Your task to perform on an android device: turn on wifi Image 0: 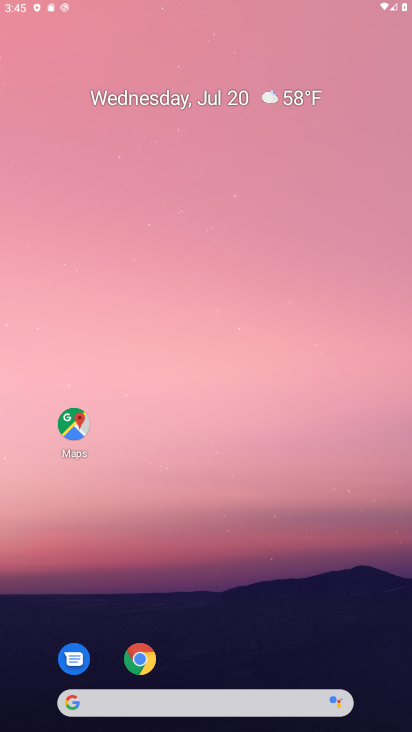
Step 0: drag from (266, 14) to (199, 1)
Your task to perform on an android device: turn on wifi Image 1: 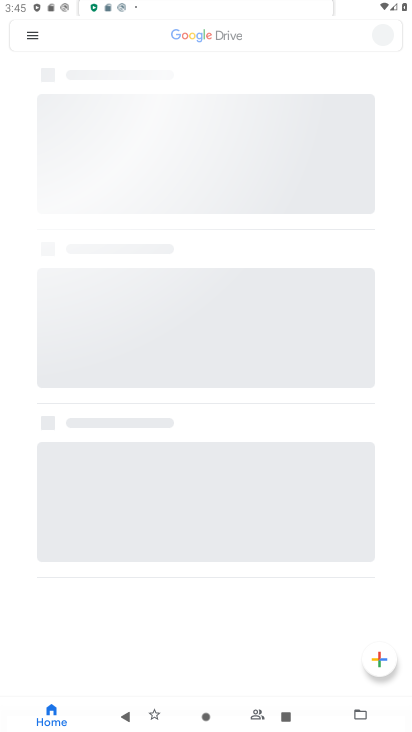
Step 1: drag from (249, 503) to (217, 14)
Your task to perform on an android device: turn on wifi Image 2: 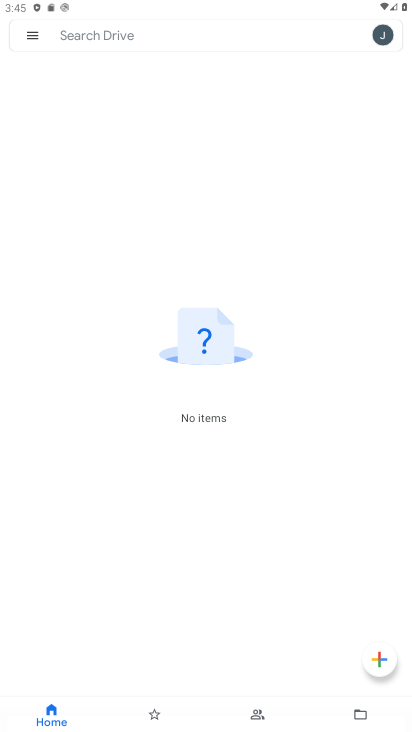
Step 2: press back button
Your task to perform on an android device: turn on wifi Image 3: 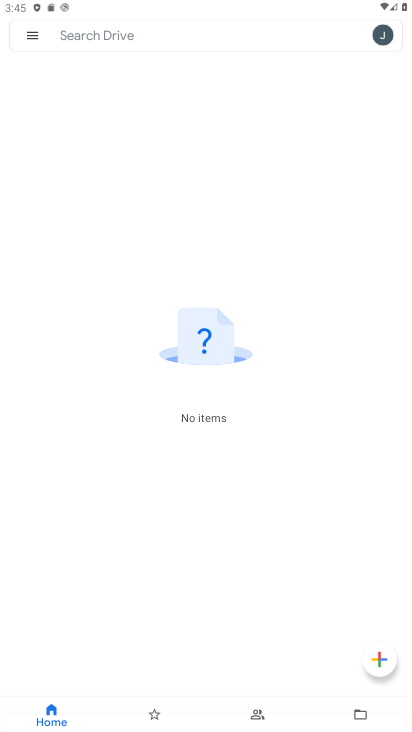
Step 3: press back button
Your task to perform on an android device: turn on wifi Image 4: 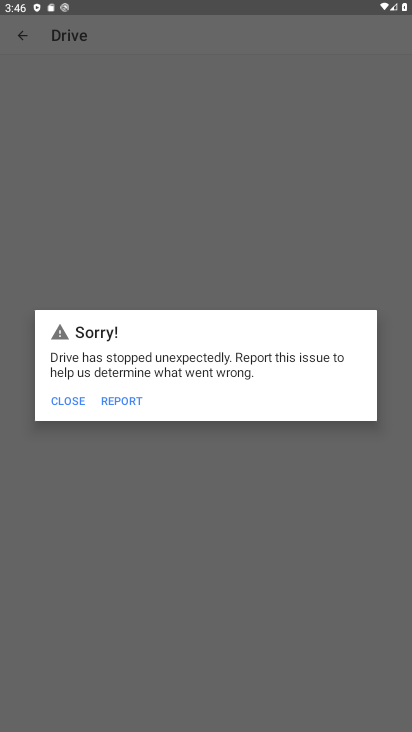
Step 4: click (79, 395)
Your task to perform on an android device: turn on wifi Image 5: 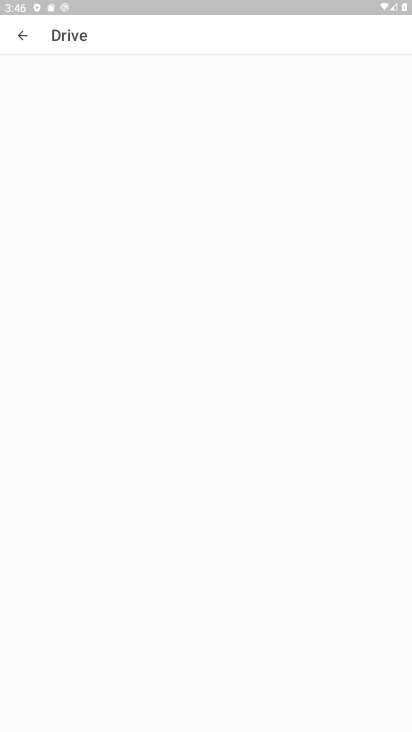
Step 5: click (92, 406)
Your task to perform on an android device: turn on wifi Image 6: 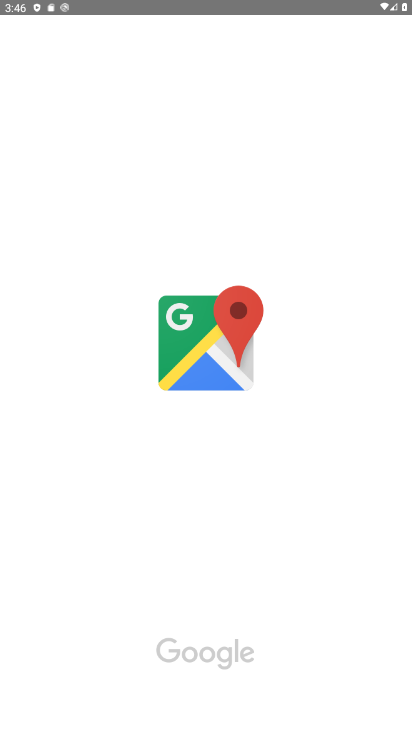
Step 6: drag from (302, 605) to (221, 26)
Your task to perform on an android device: turn on wifi Image 7: 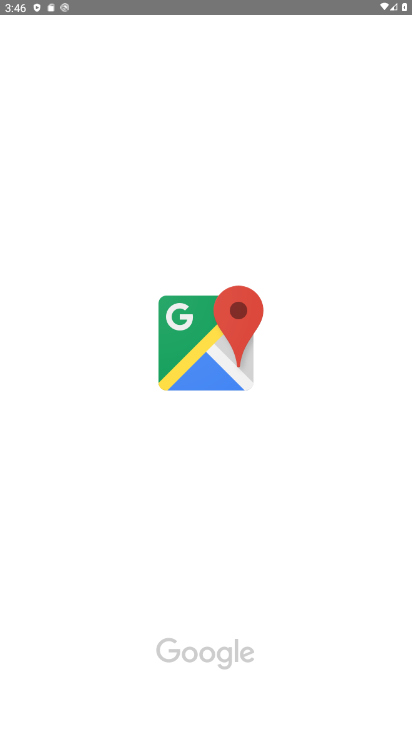
Step 7: press back button
Your task to perform on an android device: turn on wifi Image 8: 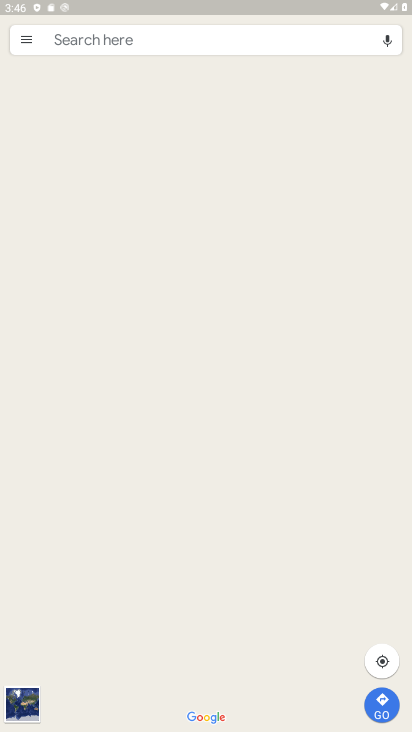
Step 8: press back button
Your task to perform on an android device: turn on wifi Image 9: 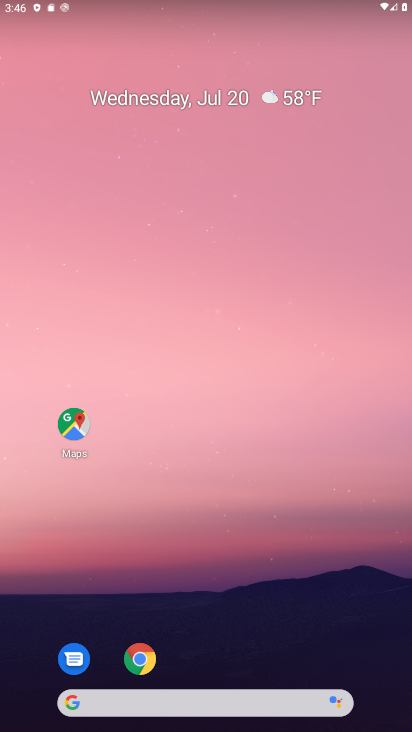
Step 9: drag from (227, 463) to (198, 116)
Your task to perform on an android device: turn on wifi Image 10: 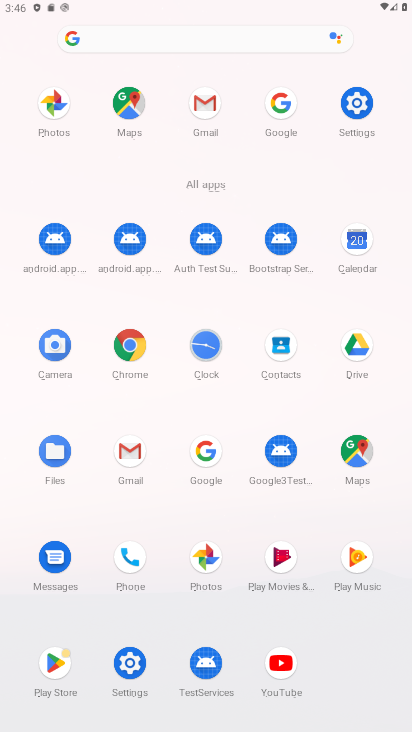
Step 10: click (363, 120)
Your task to perform on an android device: turn on wifi Image 11: 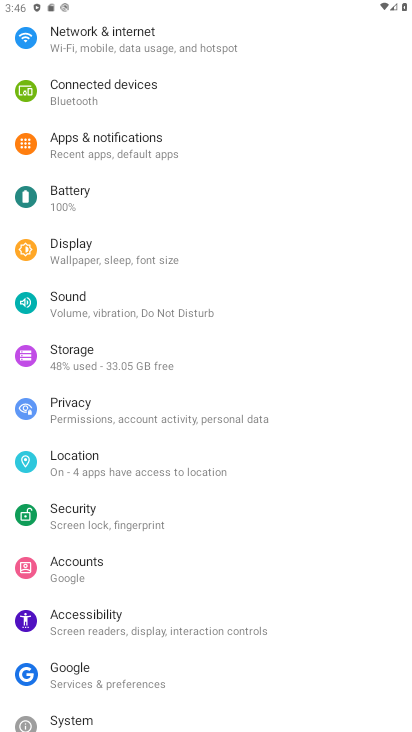
Step 11: click (112, 41)
Your task to perform on an android device: turn on wifi Image 12: 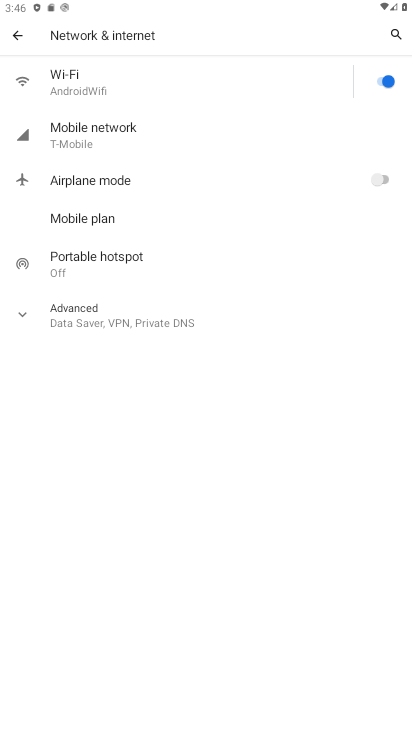
Step 12: task complete